Your task to perform on an android device: Where can I buy a nice beach hat? Image 0: 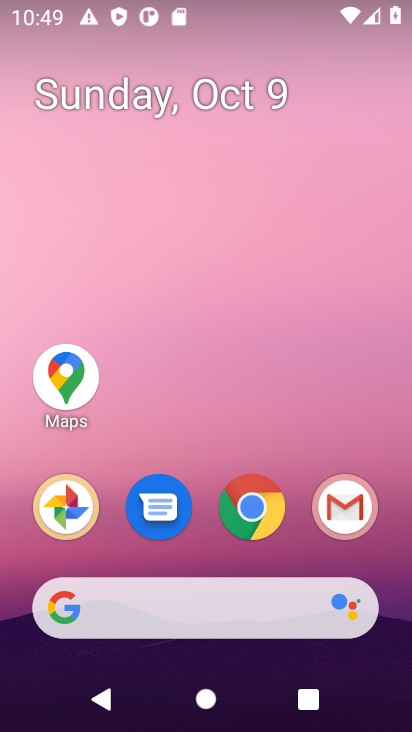
Step 0: press home button
Your task to perform on an android device: Where can I buy a nice beach hat? Image 1: 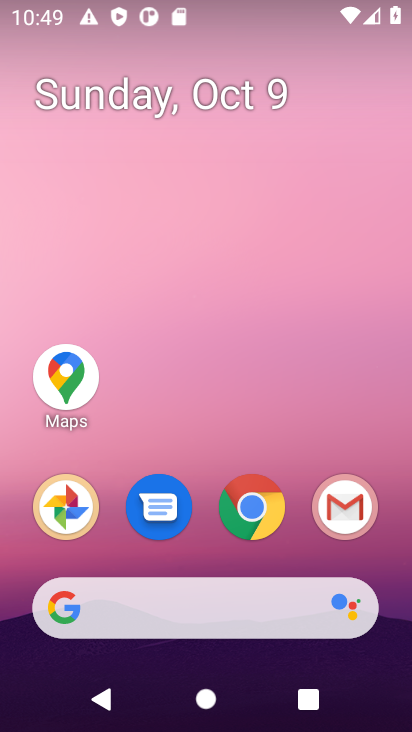
Step 1: click (208, 604)
Your task to perform on an android device: Where can I buy a nice beach hat? Image 2: 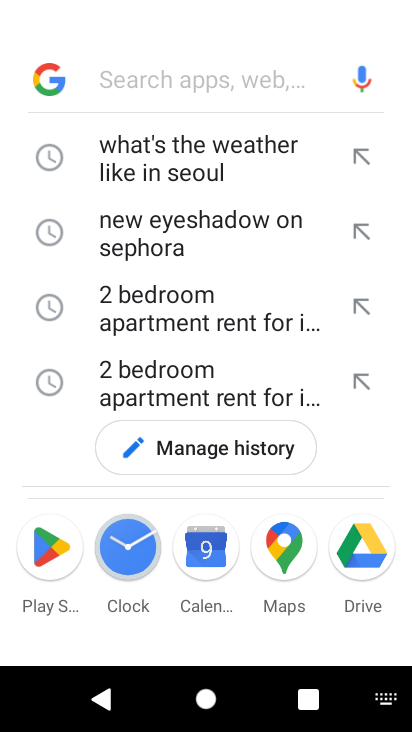
Step 2: type "Where can I buy a nice beach hat"
Your task to perform on an android device: Where can I buy a nice beach hat? Image 3: 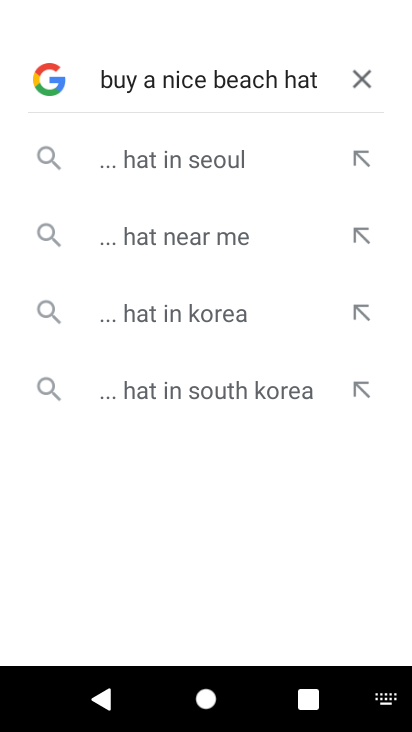
Step 3: press enter
Your task to perform on an android device: Where can I buy a nice beach hat? Image 4: 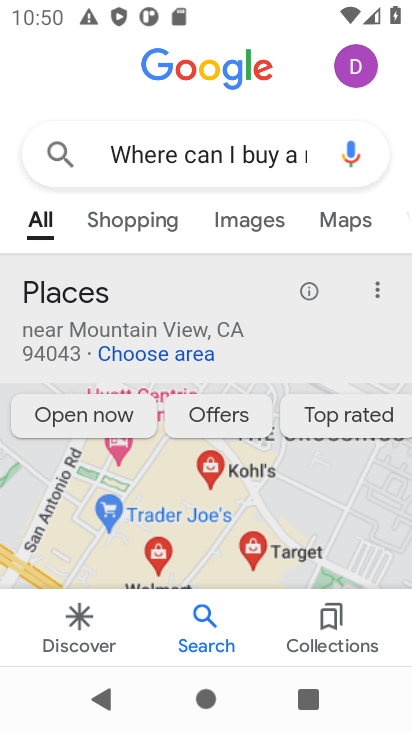
Step 4: drag from (317, 522) to (304, 231)
Your task to perform on an android device: Where can I buy a nice beach hat? Image 5: 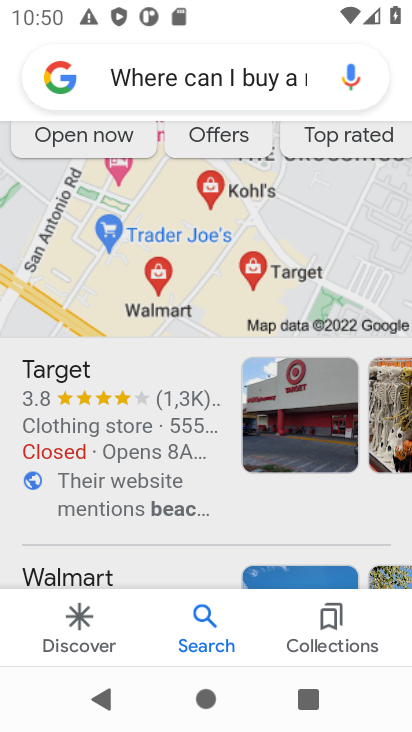
Step 5: drag from (198, 509) to (208, 265)
Your task to perform on an android device: Where can I buy a nice beach hat? Image 6: 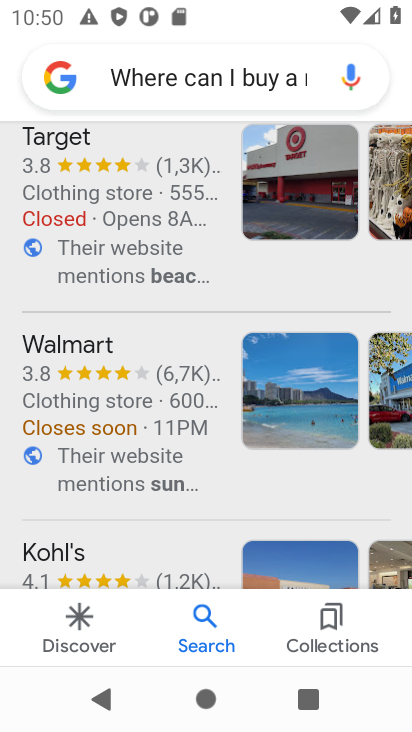
Step 6: drag from (147, 508) to (144, 199)
Your task to perform on an android device: Where can I buy a nice beach hat? Image 7: 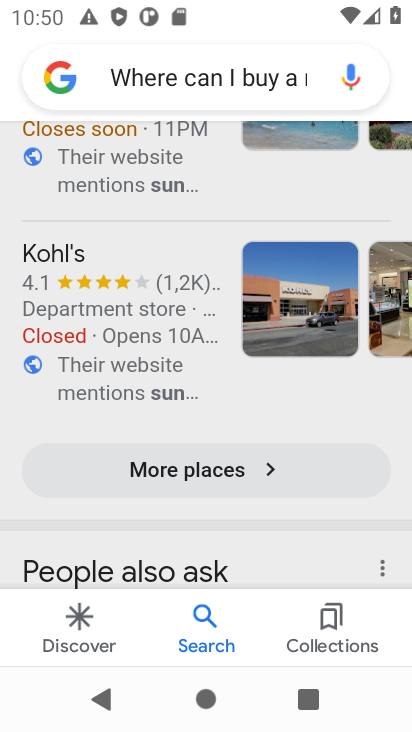
Step 7: drag from (112, 544) to (107, 186)
Your task to perform on an android device: Where can I buy a nice beach hat? Image 8: 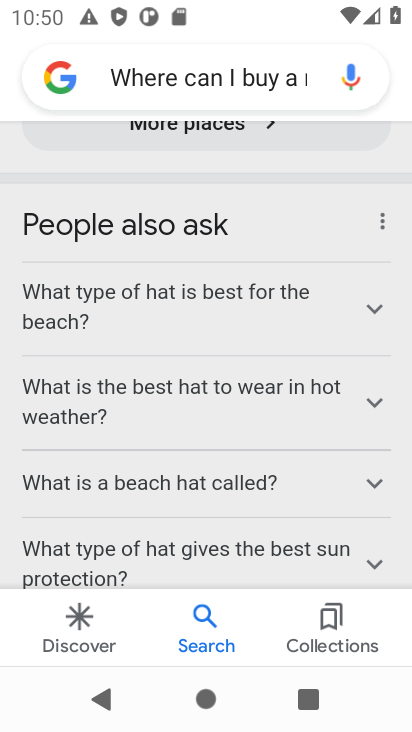
Step 8: drag from (191, 469) to (177, 172)
Your task to perform on an android device: Where can I buy a nice beach hat? Image 9: 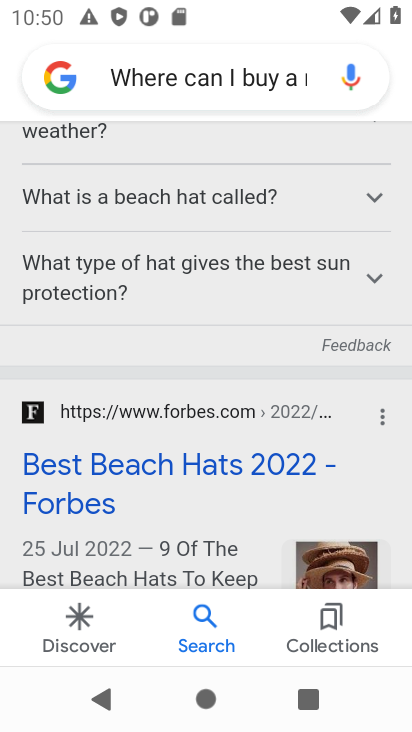
Step 9: click (196, 467)
Your task to perform on an android device: Where can I buy a nice beach hat? Image 10: 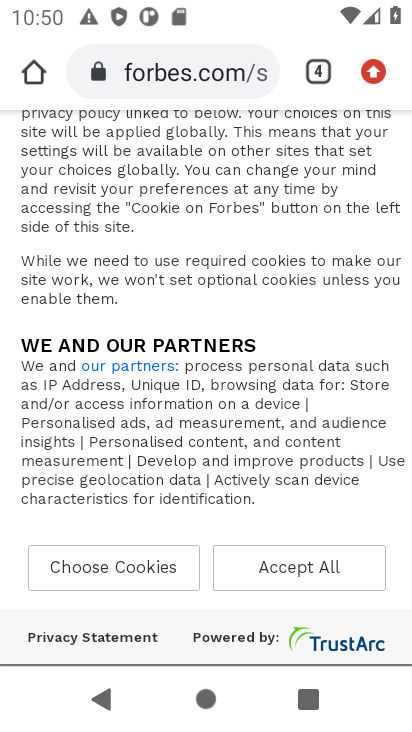
Step 10: click (295, 563)
Your task to perform on an android device: Where can I buy a nice beach hat? Image 11: 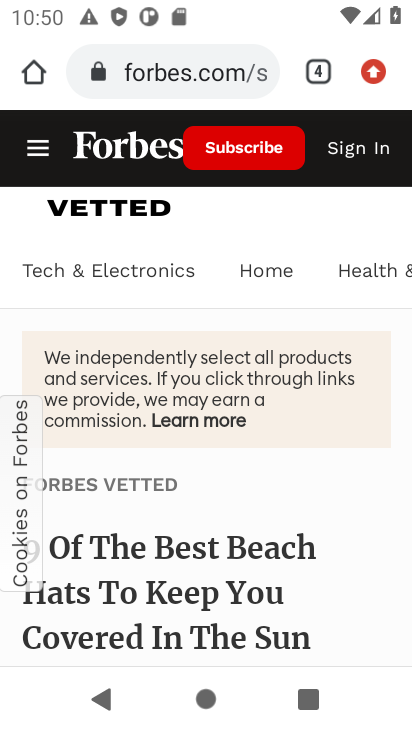
Step 11: task complete